Your task to perform on an android device: What's the weather going to be tomorrow? Image 0: 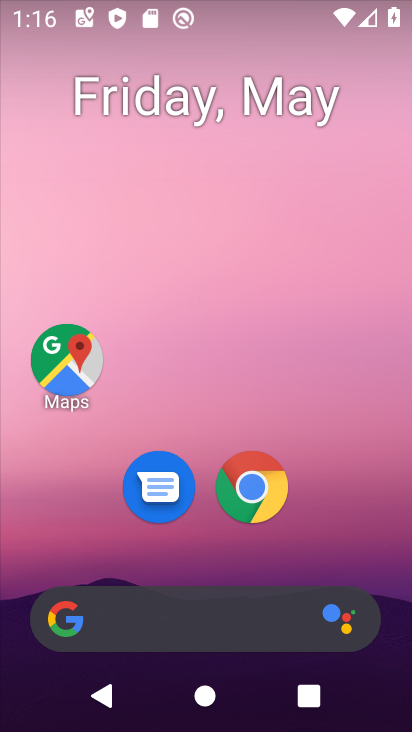
Step 0: click (163, 629)
Your task to perform on an android device: What's the weather going to be tomorrow? Image 1: 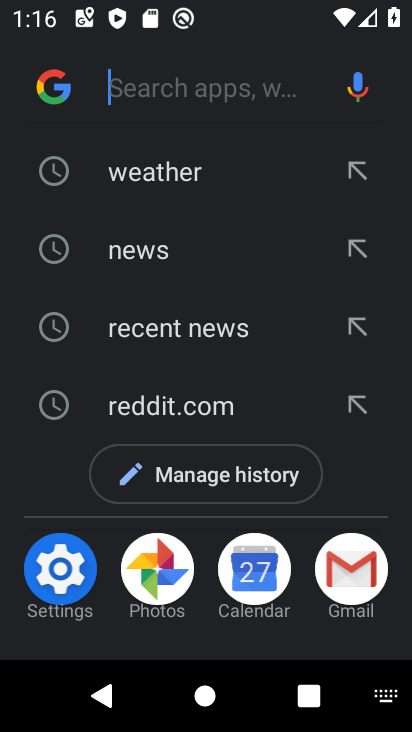
Step 1: click (166, 184)
Your task to perform on an android device: What's the weather going to be tomorrow? Image 2: 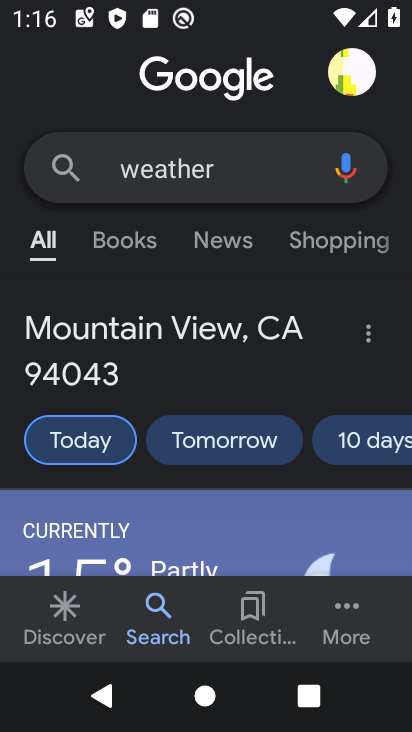
Step 2: click (205, 437)
Your task to perform on an android device: What's the weather going to be tomorrow? Image 3: 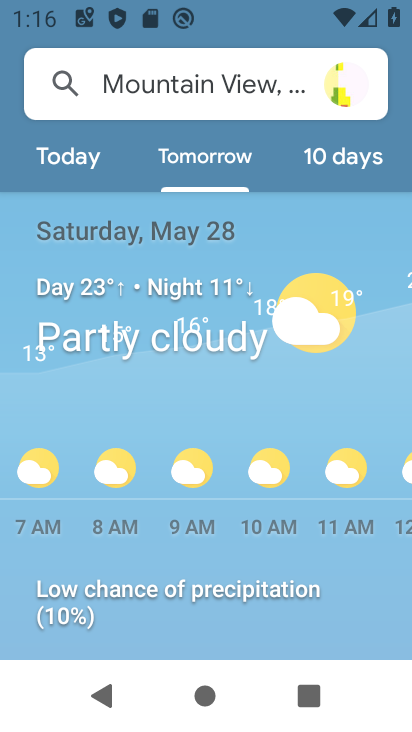
Step 3: click (210, 428)
Your task to perform on an android device: What's the weather going to be tomorrow? Image 4: 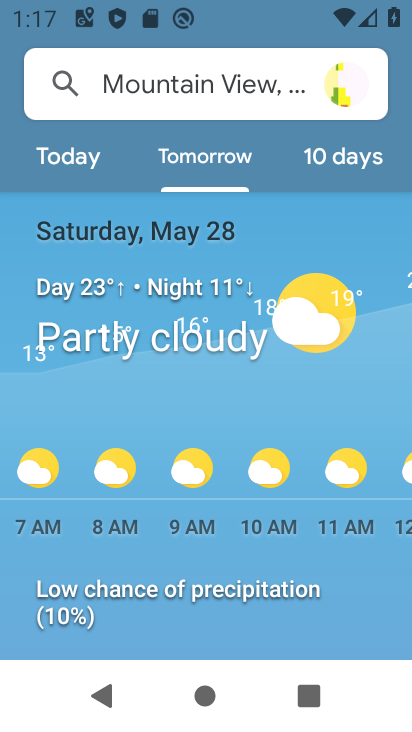
Step 4: task complete